Your task to perform on an android device: Open accessibility settings Image 0: 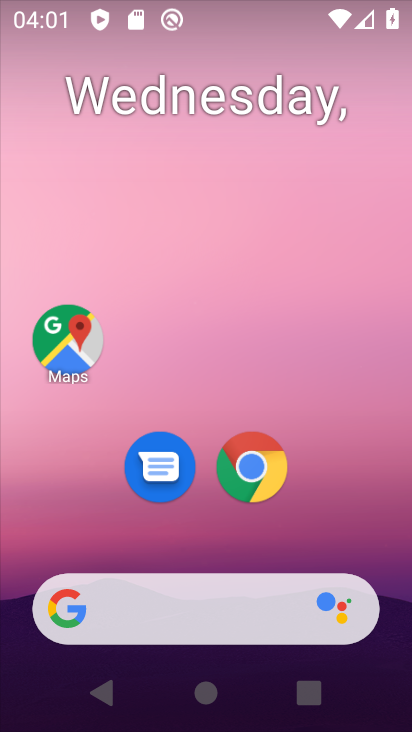
Step 0: drag from (398, 610) to (274, 55)
Your task to perform on an android device: Open accessibility settings Image 1: 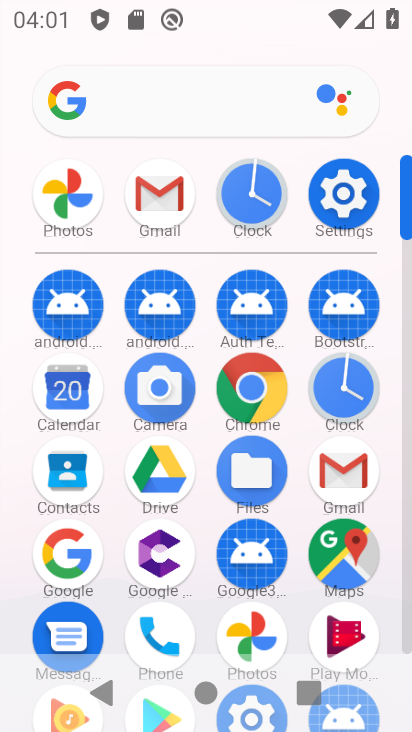
Step 1: click (407, 642)
Your task to perform on an android device: Open accessibility settings Image 2: 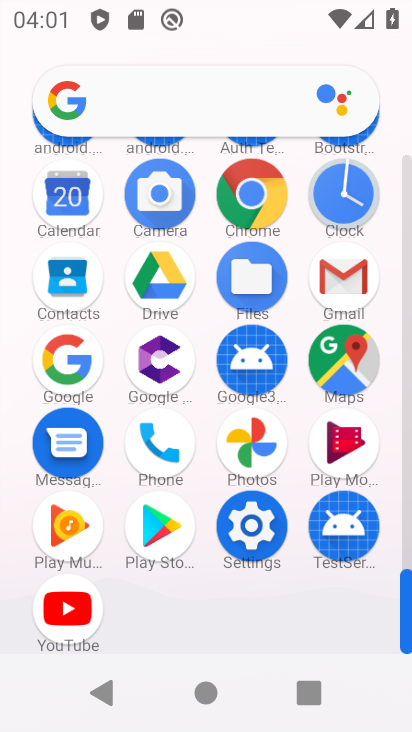
Step 2: click (251, 525)
Your task to perform on an android device: Open accessibility settings Image 3: 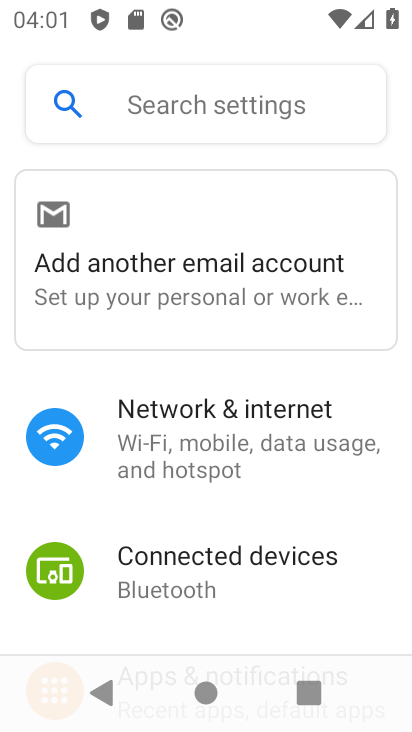
Step 3: drag from (337, 591) to (351, 207)
Your task to perform on an android device: Open accessibility settings Image 4: 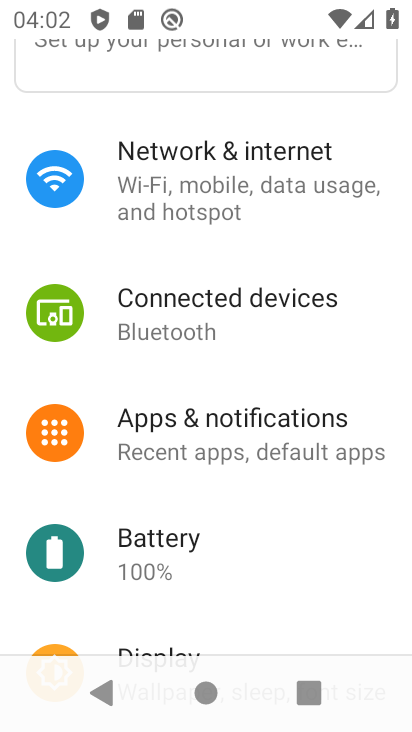
Step 4: drag from (323, 543) to (371, 247)
Your task to perform on an android device: Open accessibility settings Image 5: 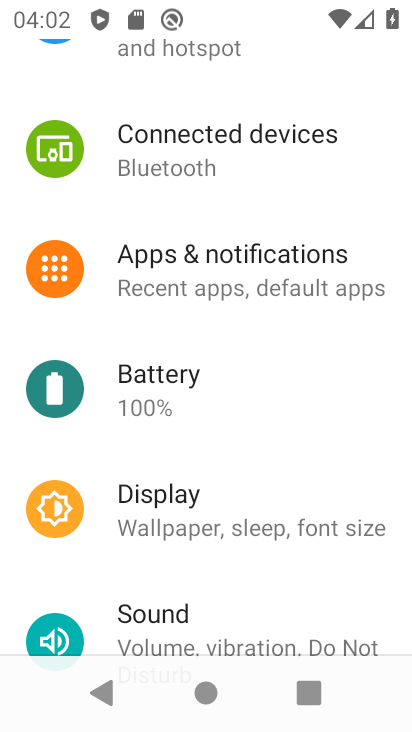
Step 5: drag from (364, 538) to (355, 293)
Your task to perform on an android device: Open accessibility settings Image 6: 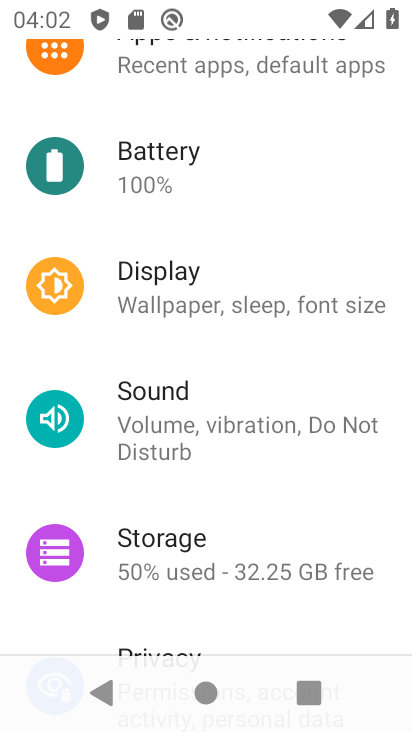
Step 6: drag from (313, 535) to (340, 264)
Your task to perform on an android device: Open accessibility settings Image 7: 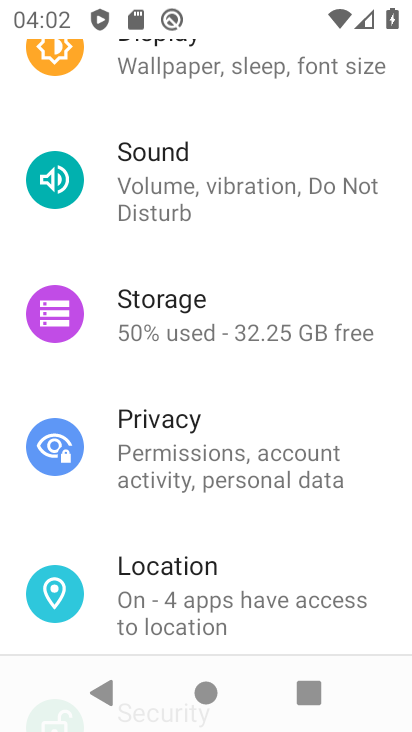
Step 7: drag from (339, 550) to (354, 232)
Your task to perform on an android device: Open accessibility settings Image 8: 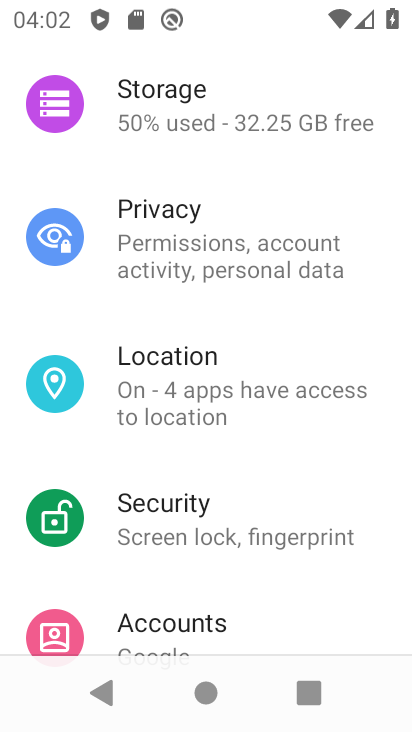
Step 8: drag from (335, 525) to (362, 212)
Your task to perform on an android device: Open accessibility settings Image 9: 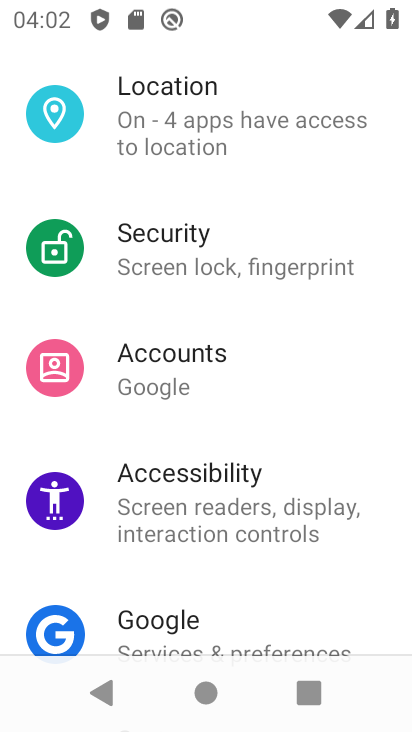
Step 9: click (165, 506)
Your task to perform on an android device: Open accessibility settings Image 10: 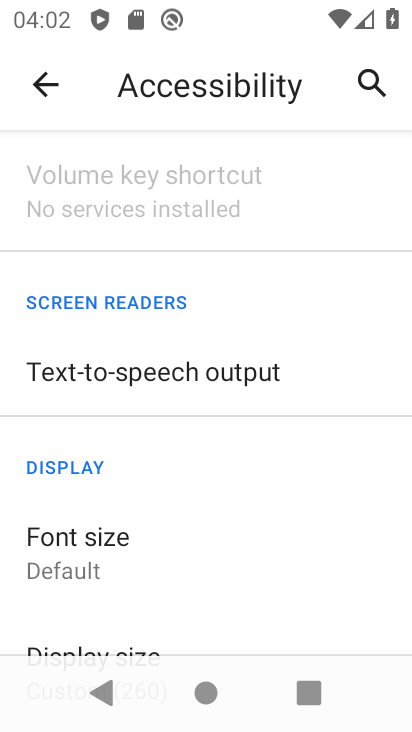
Step 10: task complete